Your task to perform on an android device: toggle location history Image 0: 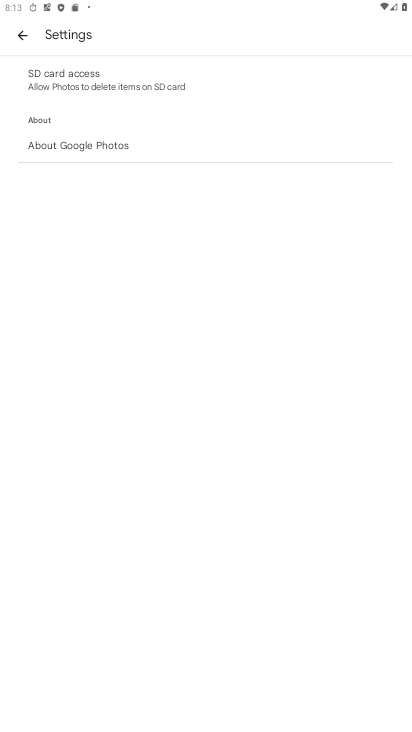
Step 0: press home button
Your task to perform on an android device: toggle location history Image 1: 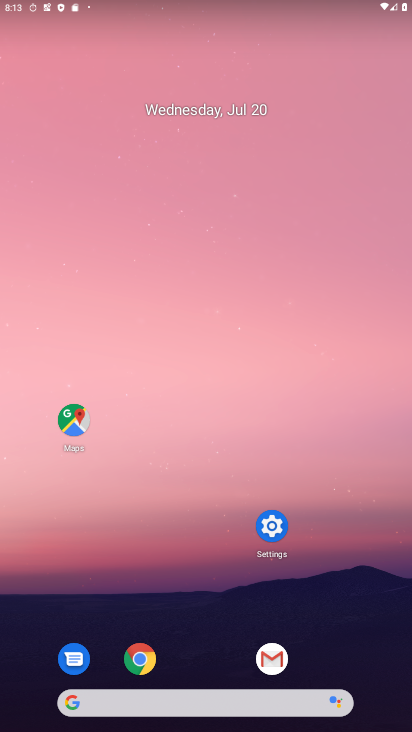
Step 1: click (277, 525)
Your task to perform on an android device: toggle location history Image 2: 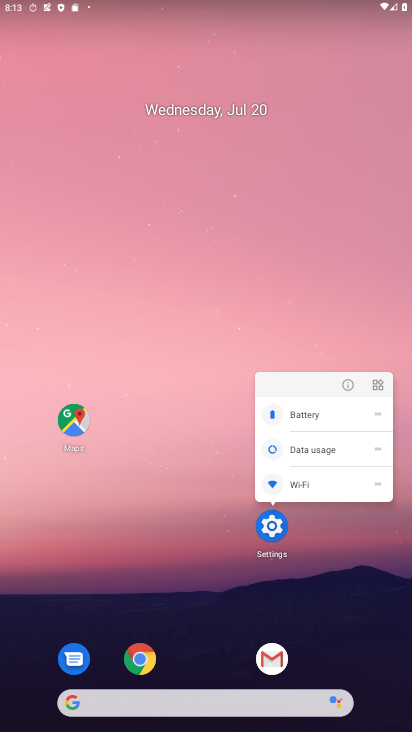
Step 2: click (278, 533)
Your task to perform on an android device: toggle location history Image 3: 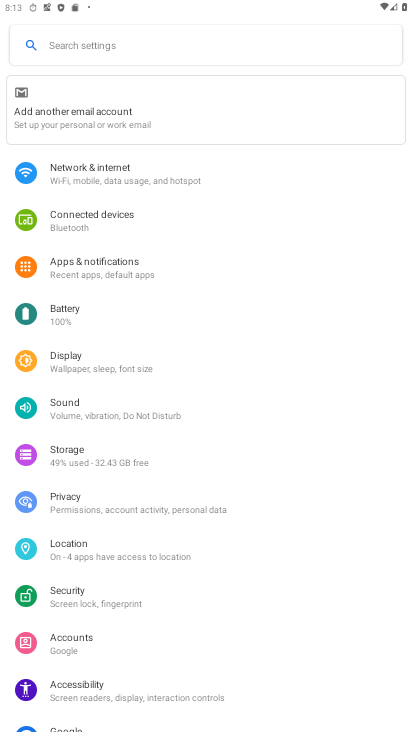
Step 3: click (82, 552)
Your task to perform on an android device: toggle location history Image 4: 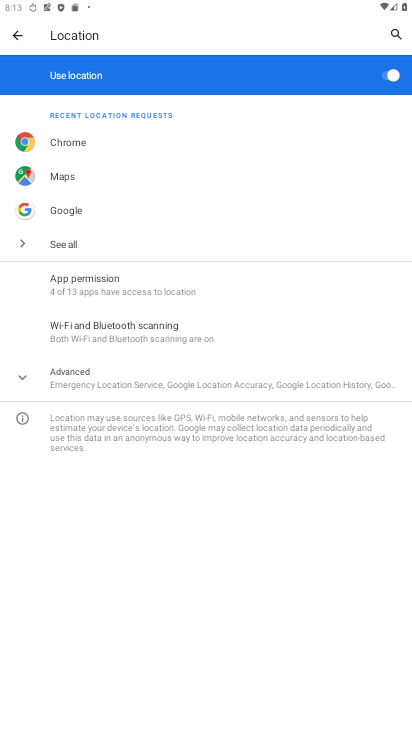
Step 4: click (53, 375)
Your task to perform on an android device: toggle location history Image 5: 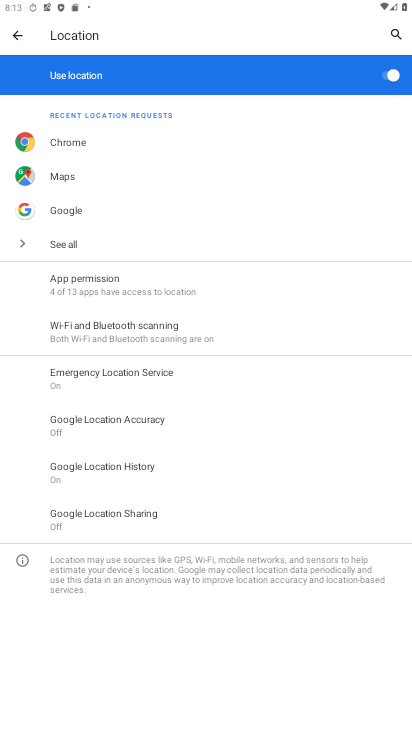
Step 5: click (118, 465)
Your task to perform on an android device: toggle location history Image 6: 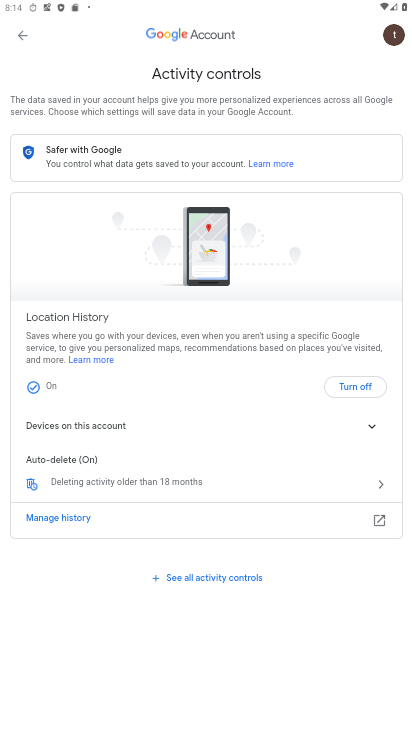
Step 6: task complete